Your task to perform on an android device: Search for seafood restaurants on Google Maps Image 0: 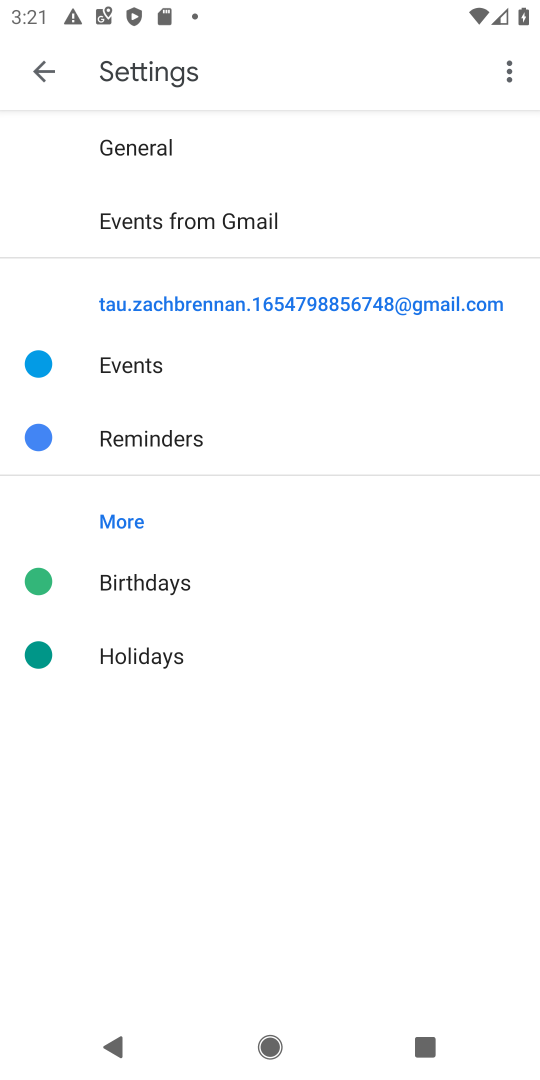
Step 0: press back button
Your task to perform on an android device: Search for seafood restaurants on Google Maps Image 1: 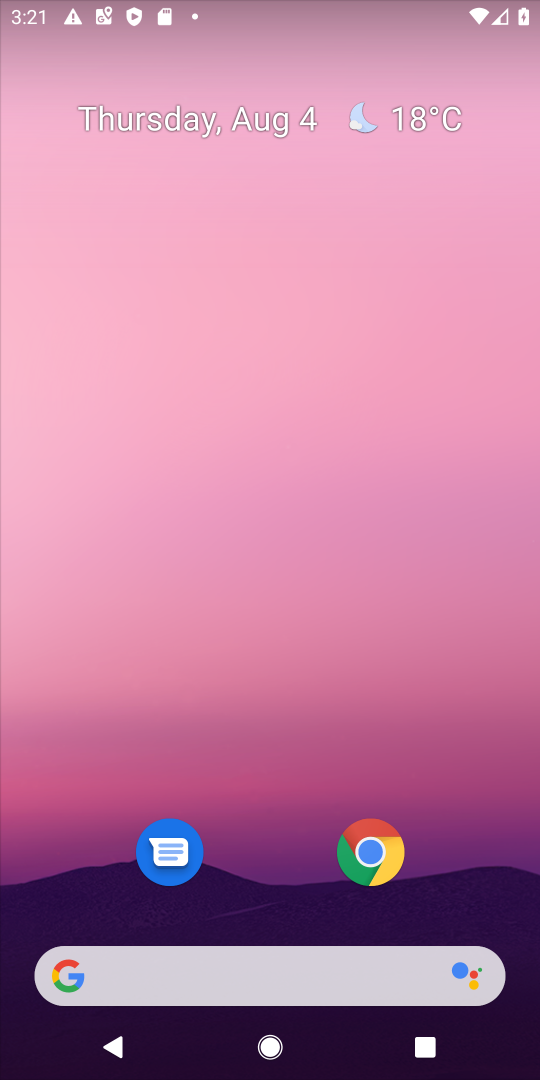
Step 1: drag from (262, 842) to (281, 138)
Your task to perform on an android device: Search for seafood restaurants on Google Maps Image 2: 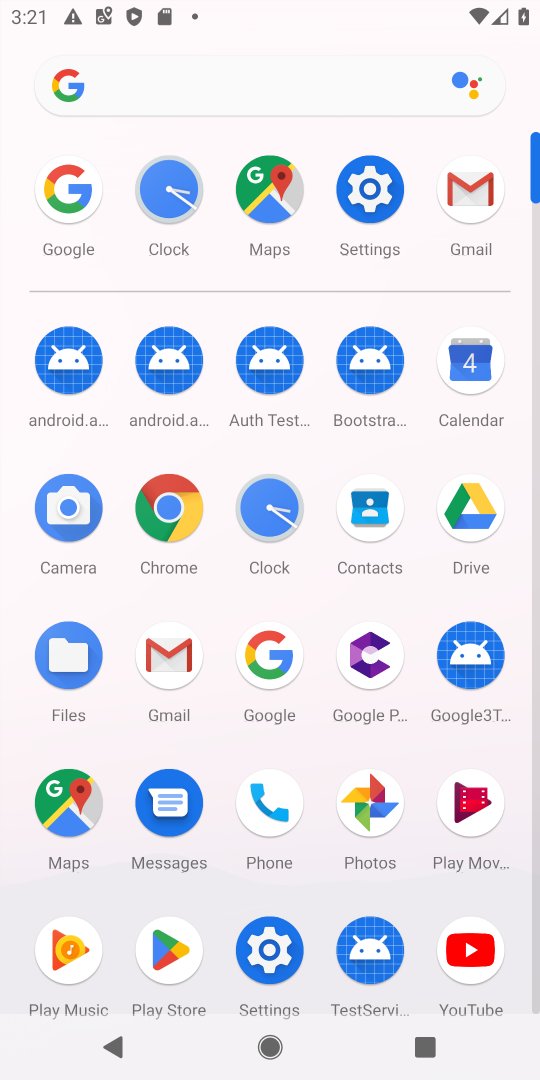
Step 2: click (247, 185)
Your task to perform on an android device: Search for seafood restaurants on Google Maps Image 3: 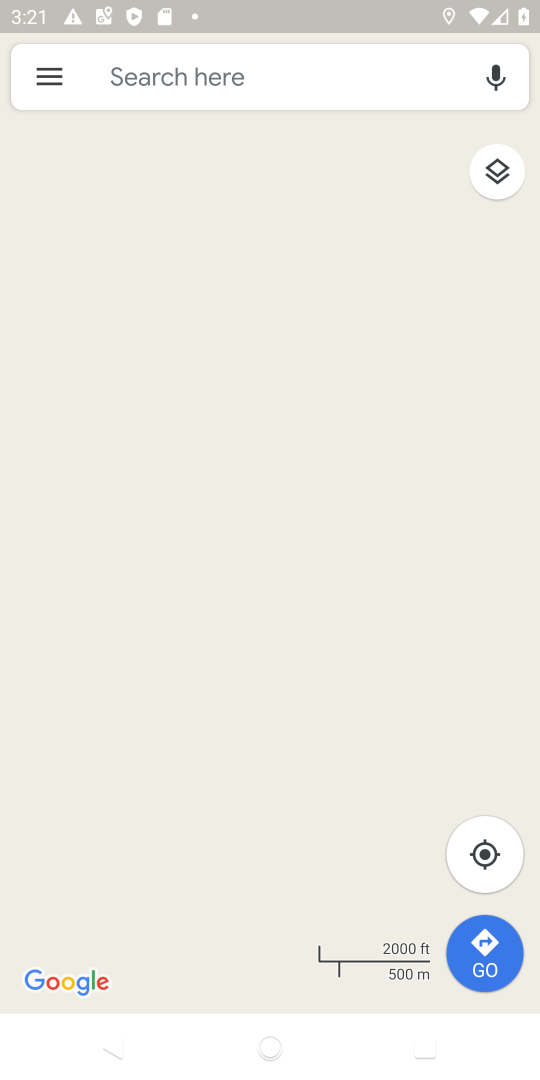
Step 3: click (218, 79)
Your task to perform on an android device: Search for seafood restaurants on Google Maps Image 4: 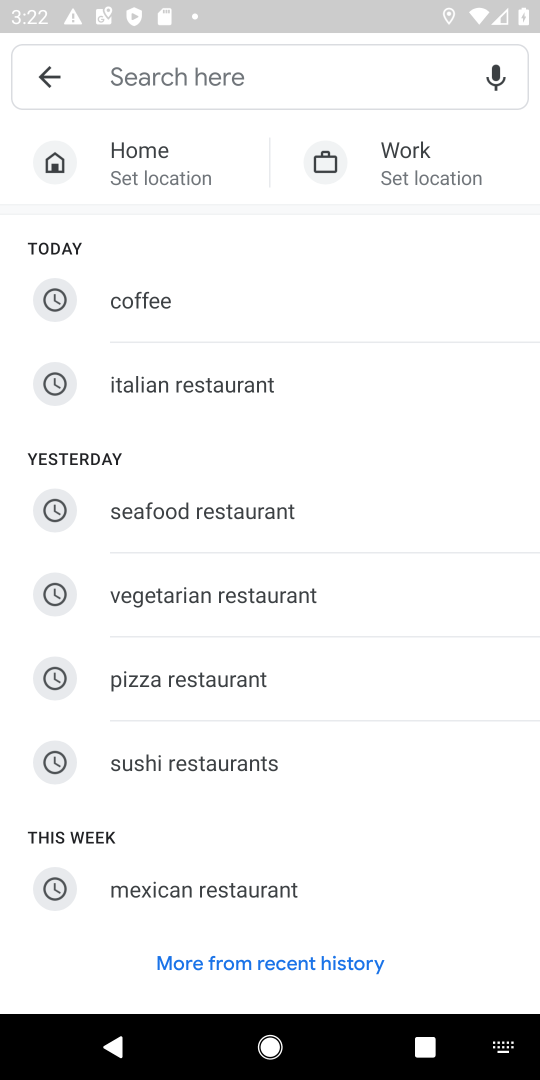
Step 4: type "seafood restaurants"
Your task to perform on an android device: Search for seafood restaurants on Google Maps Image 5: 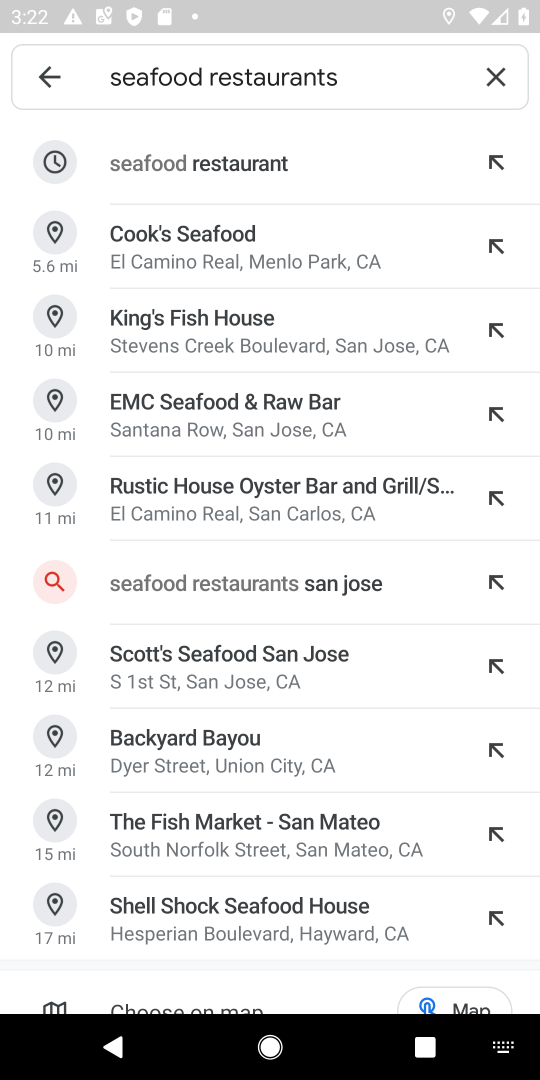
Step 5: click (209, 175)
Your task to perform on an android device: Search for seafood restaurants on Google Maps Image 6: 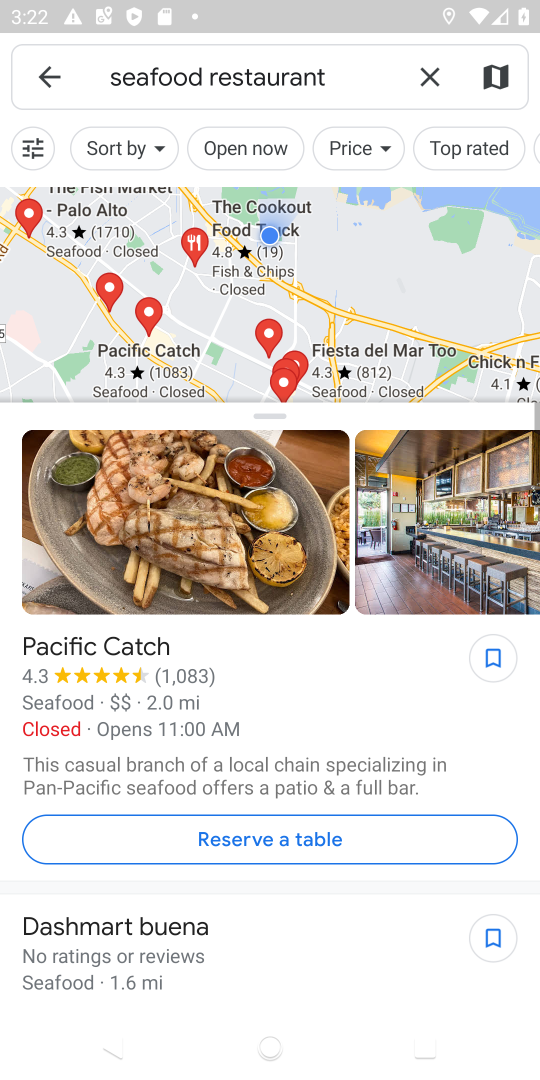
Step 6: task complete